Your task to perform on an android device: turn off notifications settings in the gmail app Image 0: 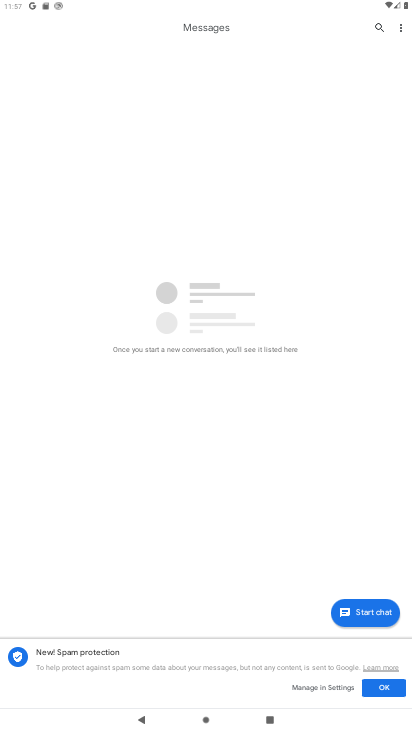
Step 0: press home button
Your task to perform on an android device: turn off notifications settings in the gmail app Image 1: 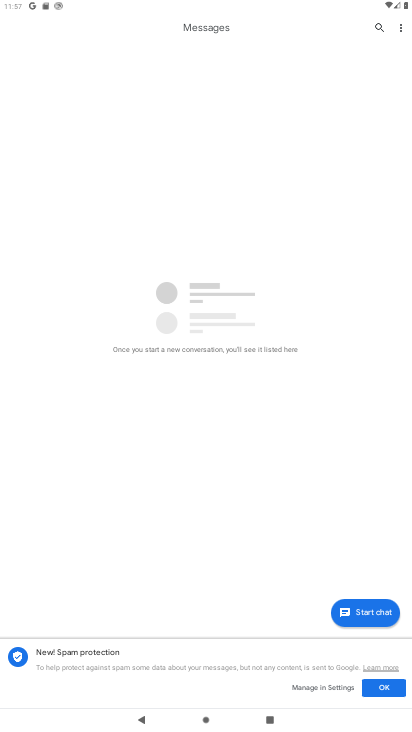
Step 1: press home button
Your task to perform on an android device: turn off notifications settings in the gmail app Image 2: 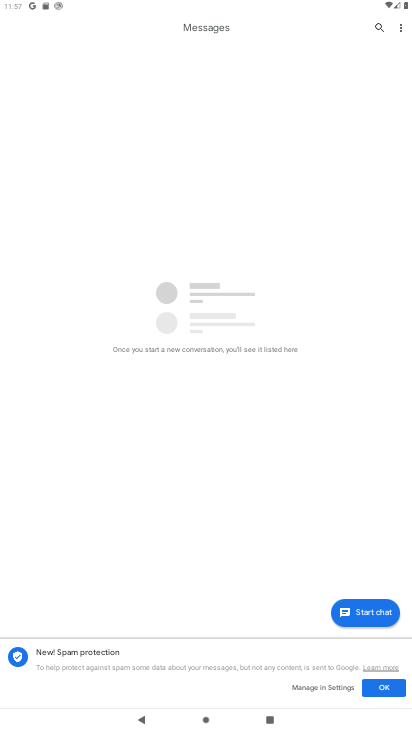
Step 2: click (127, 15)
Your task to perform on an android device: turn off notifications settings in the gmail app Image 3: 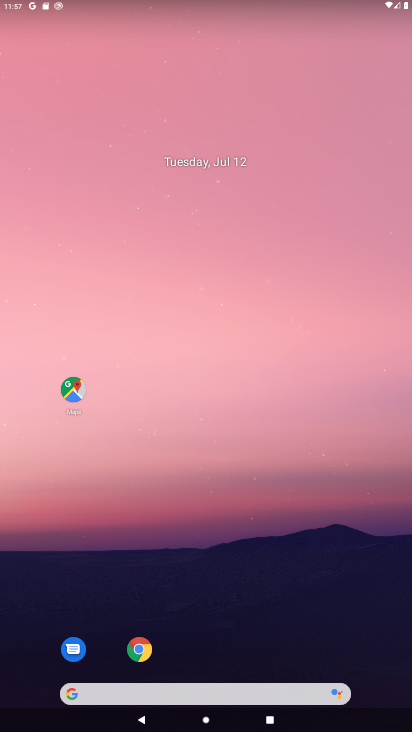
Step 3: drag from (163, 514) to (195, 72)
Your task to perform on an android device: turn off notifications settings in the gmail app Image 4: 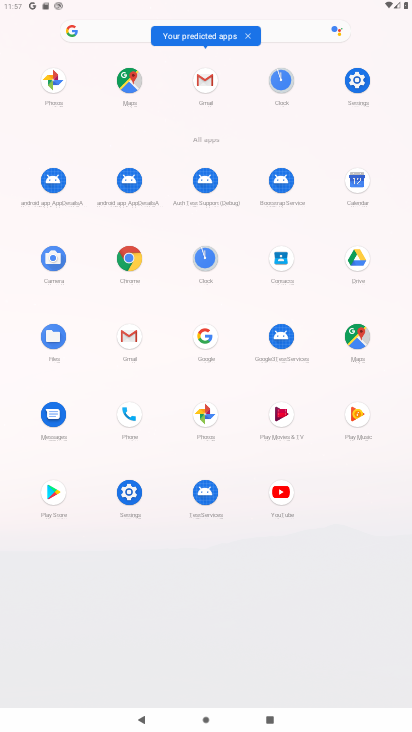
Step 4: click (199, 79)
Your task to perform on an android device: turn off notifications settings in the gmail app Image 5: 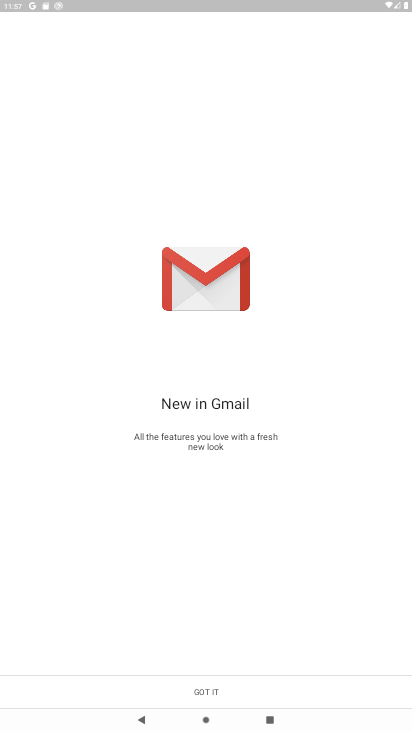
Step 5: click (212, 688)
Your task to perform on an android device: turn off notifications settings in the gmail app Image 6: 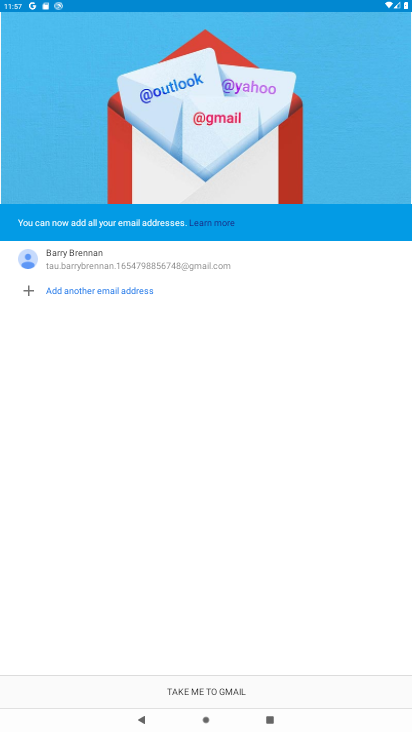
Step 6: click (203, 685)
Your task to perform on an android device: turn off notifications settings in the gmail app Image 7: 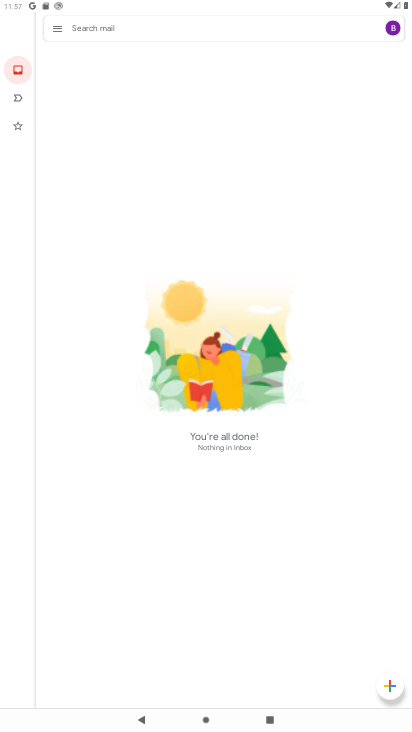
Step 7: drag from (188, 528) to (200, 476)
Your task to perform on an android device: turn off notifications settings in the gmail app Image 8: 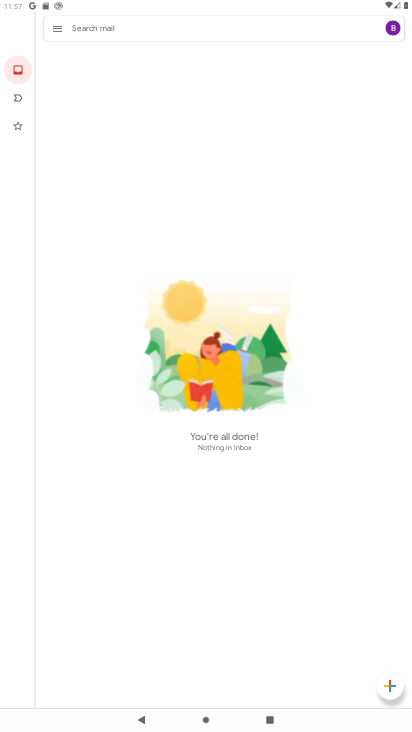
Step 8: click (47, 28)
Your task to perform on an android device: turn off notifications settings in the gmail app Image 9: 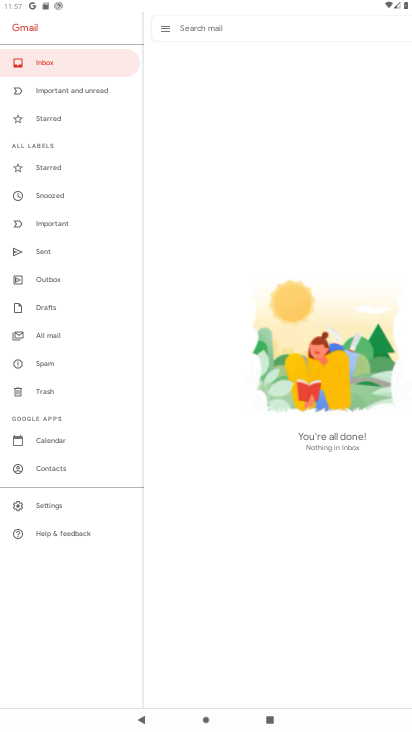
Step 9: click (46, 514)
Your task to perform on an android device: turn off notifications settings in the gmail app Image 10: 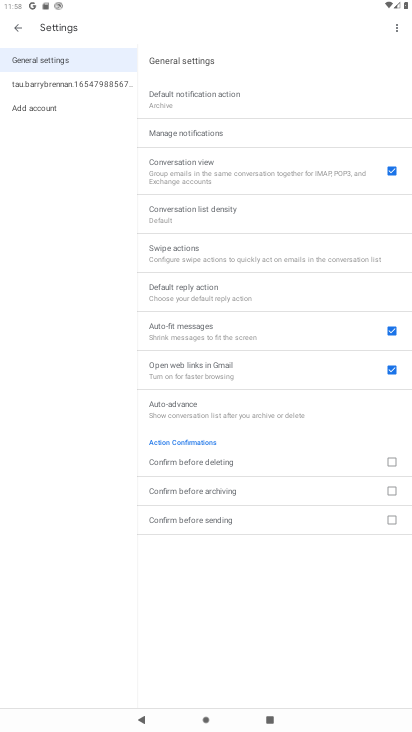
Step 10: click (62, 88)
Your task to perform on an android device: turn off notifications settings in the gmail app Image 11: 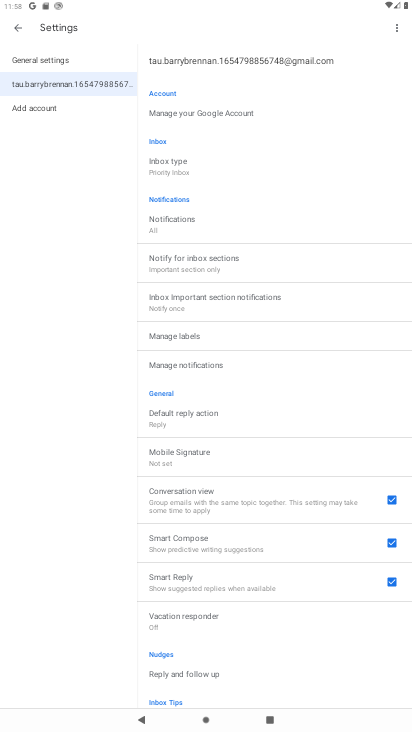
Step 11: click (189, 364)
Your task to perform on an android device: turn off notifications settings in the gmail app Image 12: 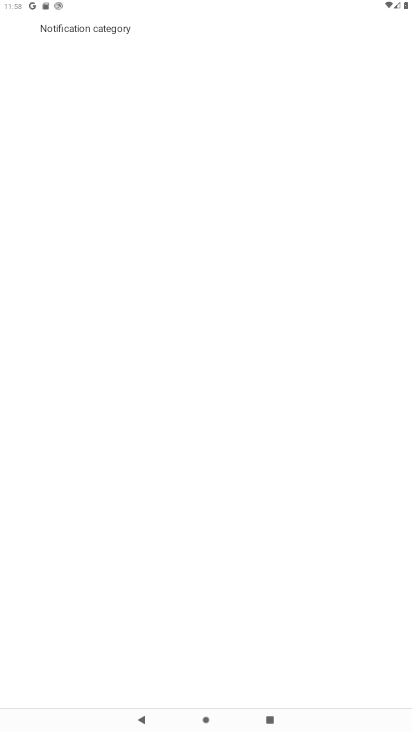
Step 12: drag from (205, 468) to (236, 141)
Your task to perform on an android device: turn off notifications settings in the gmail app Image 13: 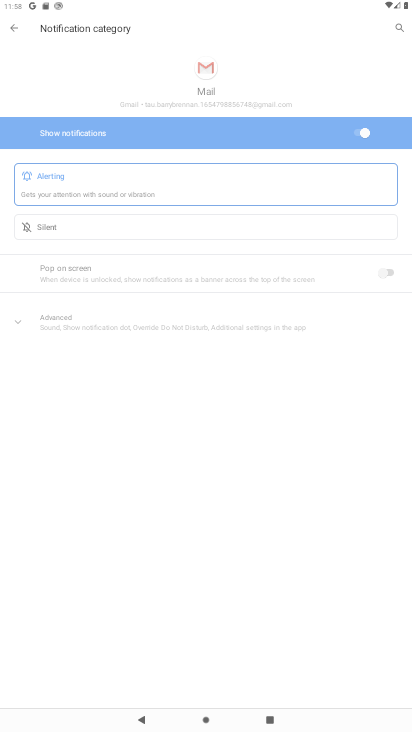
Step 13: drag from (221, 386) to (219, 176)
Your task to perform on an android device: turn off notifications settings in the gmail app Image 14: 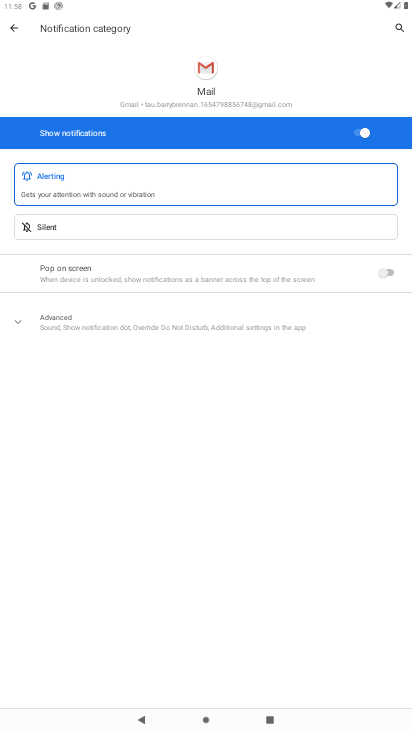
Step 14: drag from (233, 356) to (377, 82)
Your task to perform on an android device: turn off notifications settings in the gmail app Image 15: 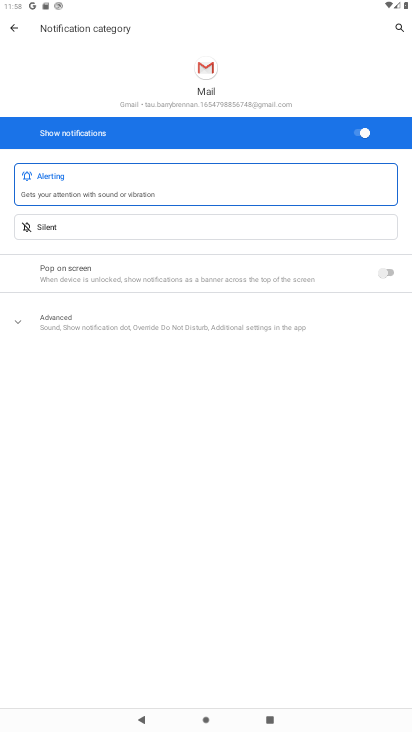
Step 15: drag from (235, 576) to (263, 154)
Your task to perform on an android device: turn off notifications settings in the gmail app Image 16: 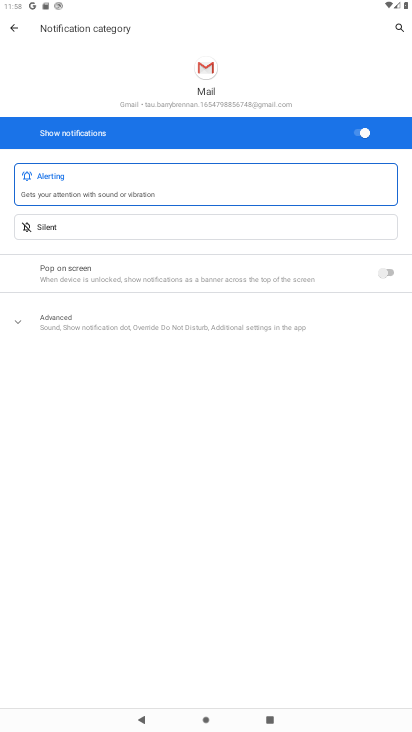
Step 16: drag from (157, 73) to (196, 513)
Your task to perform on an android device: turn off notifications settings in the gmail app Image 17: 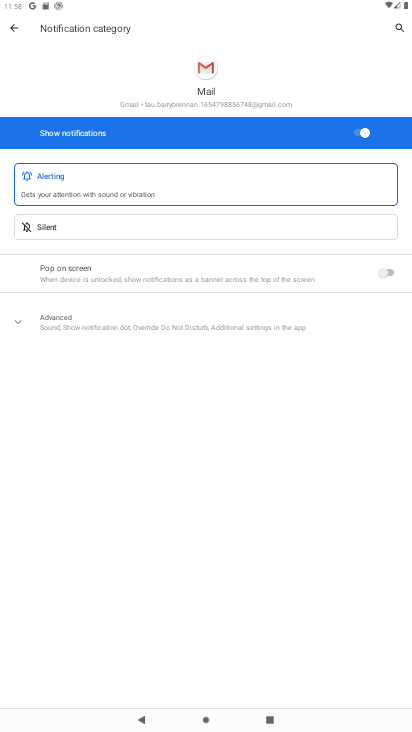
Step 17: drag from (202, 381) to (202, 264)
Your task to perform on an android device: turn off notifications settings in the gmail app Image 18: 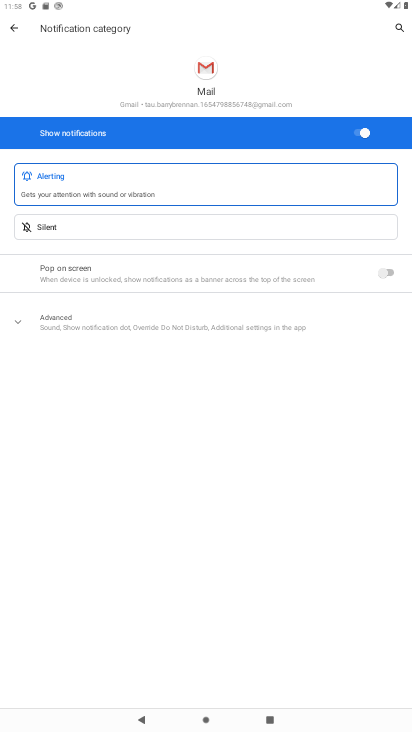
Step 18: drag from (221, 457) to (232, 371)
Your task to perform on an android device: turn off notifications settings in the gmail app Image 19: 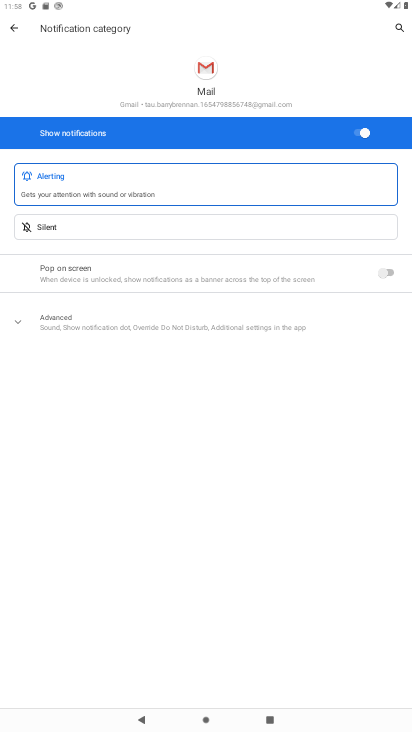
Step 19: click (365, 130)
Your task to perform on an android device: turn off notifications settings in the gmail app Image 20: 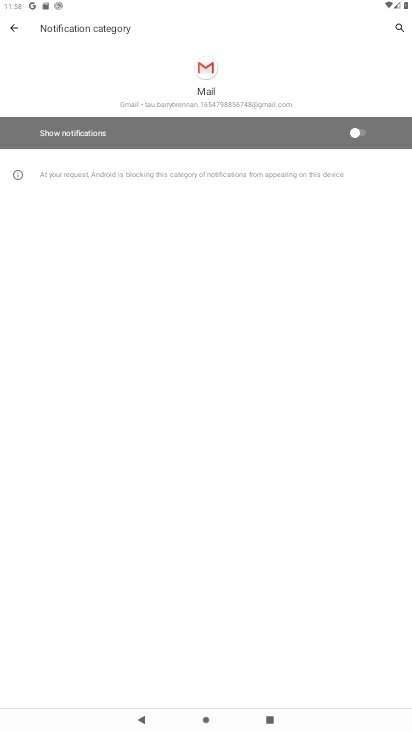
Step 20: task complete